Your task to perform on an android device: Go to accessibility settings Image 0: 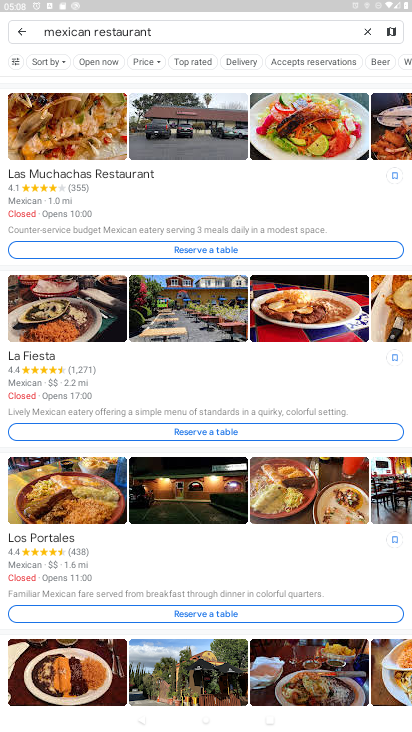
Step 0: press home button
Your task to perform on an android device: Go to accessibility settings Image 1: 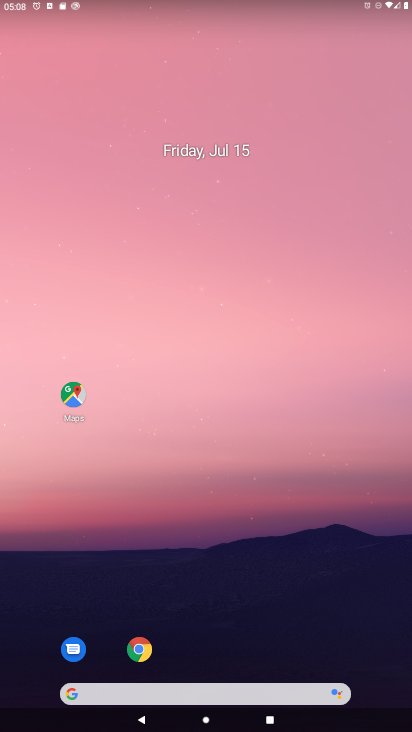
Step 1: drag from (361, 687) to (354, 79)
Your task to perform on an android device: Go to accessibility settings Image 2: 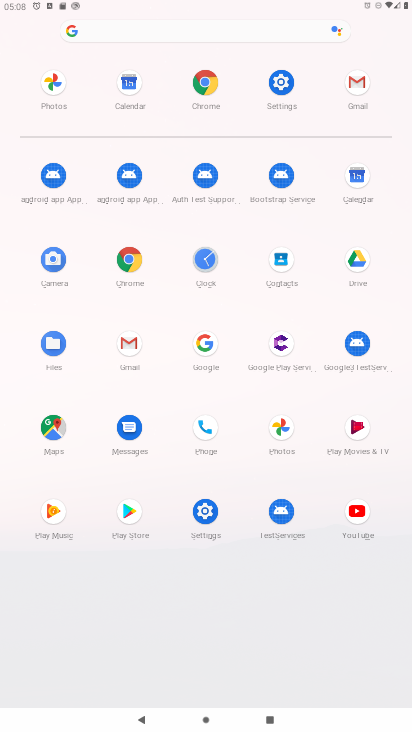
Step 2: click (208, 513)
Your task to perform on an android device: Go to accessibility settings Image 3: 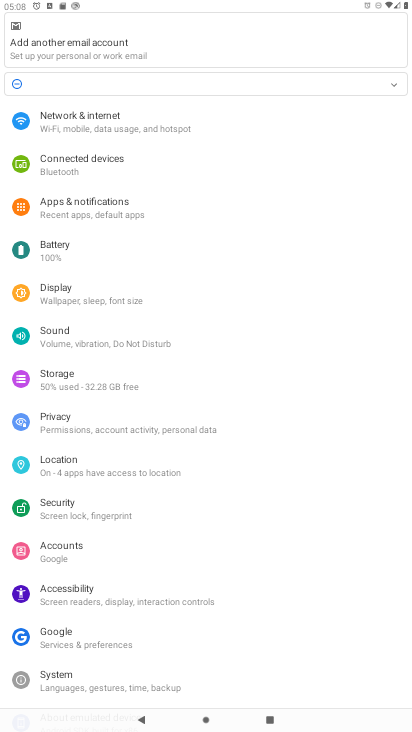
Step 3: click (60, 584)
Your task to perform on an android device: Go to accessibility settings Image 4: 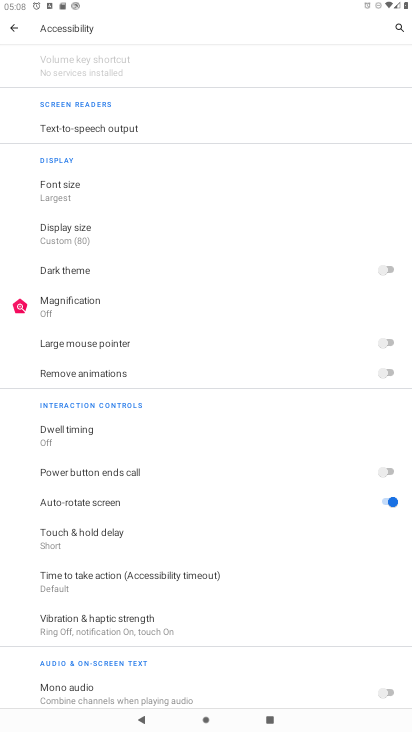
Step 4: task complete